Your task to perform on an android device: Go to Google maps Image 0: 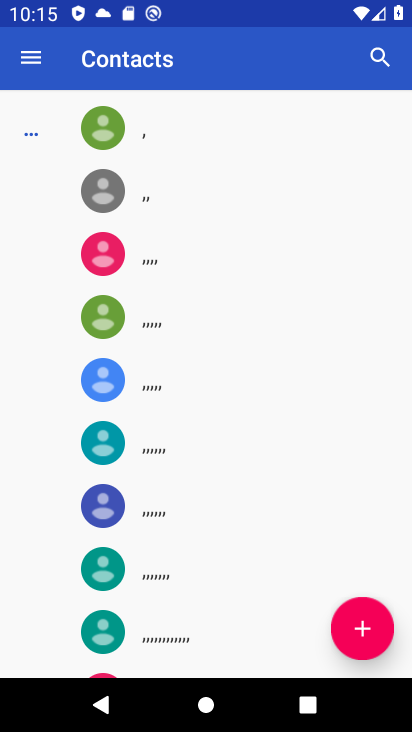
Step 0: press home button
Your task to perform on an android device: Go to Google maps Image 1: 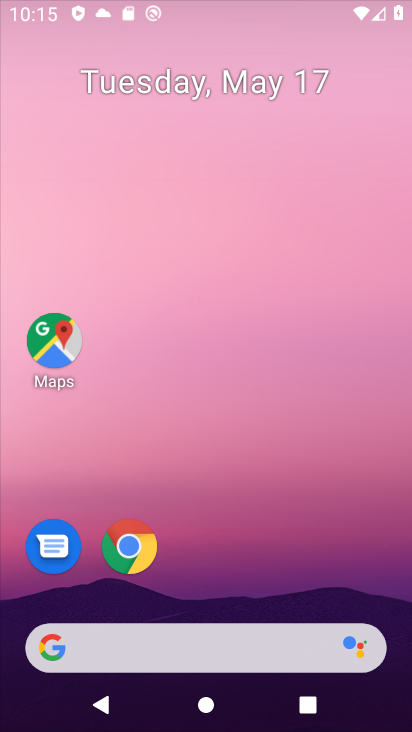
Step 1: drag from (163, 575) to (188, 491)
Your task to perform on an android device: Go to Google maps Image 2: 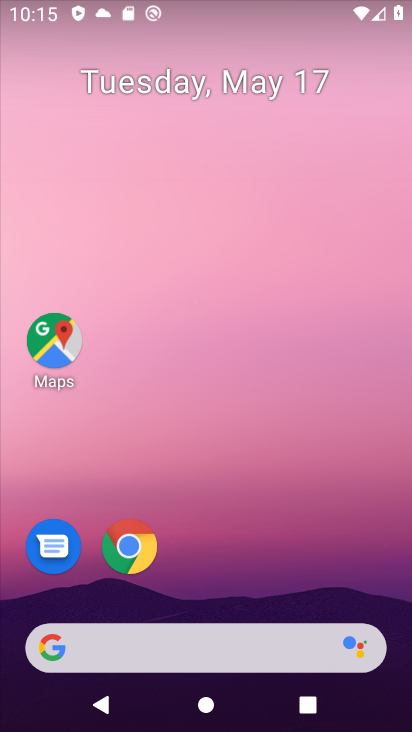
Step 2: click (46, 327)
Your task to perform on an android device: Go to Google maps Image 3: 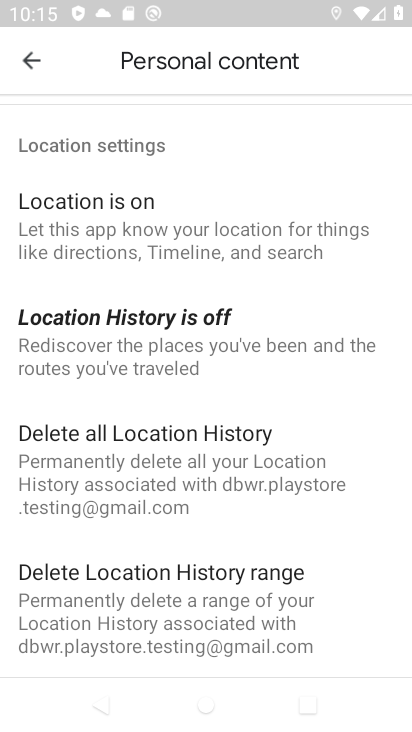
Step 3: click (24, 54)
Your task to perform on an android device: Go to Google maps Image 4: 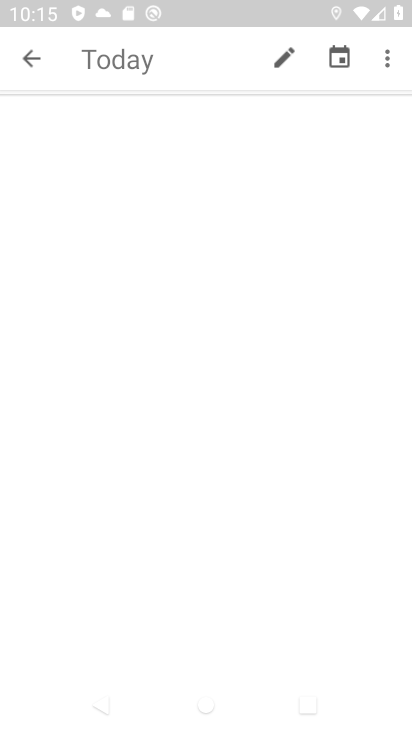
Step 4: click (39, 61)
Your task to perform on an android device: Go to Google maps Image 5: 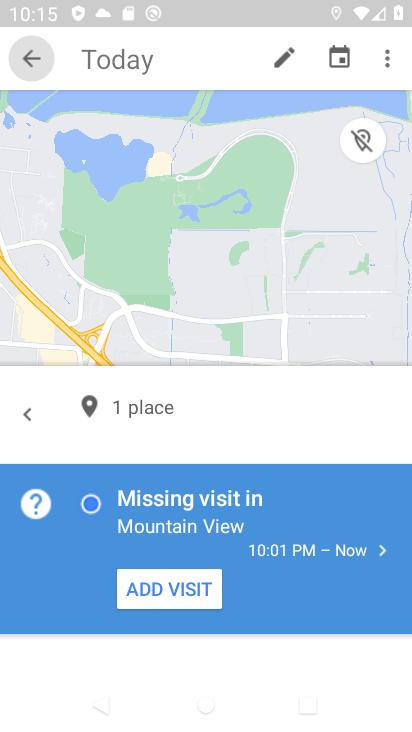
Step 5: click (39, 63)
Your task to perform on an android device: Go to Google maps Image 6: 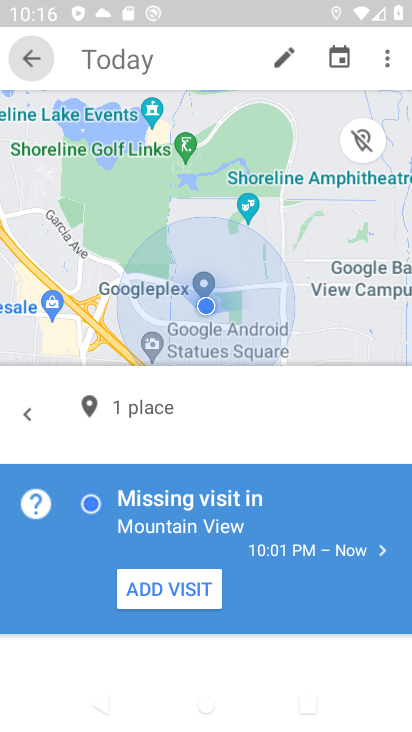
Step 6: task complete